Your task to perform on an android device: Open Chrome and go to settings Image 0: 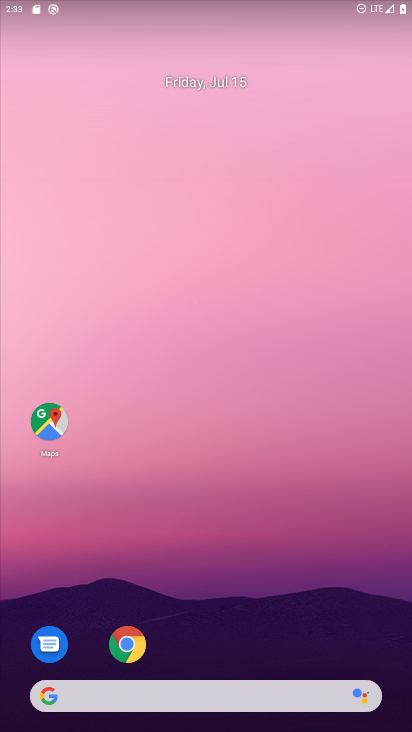
Step 0: click (134, 641)
Your task to perform on an android device: Open Chrome and go to settings Image 1: 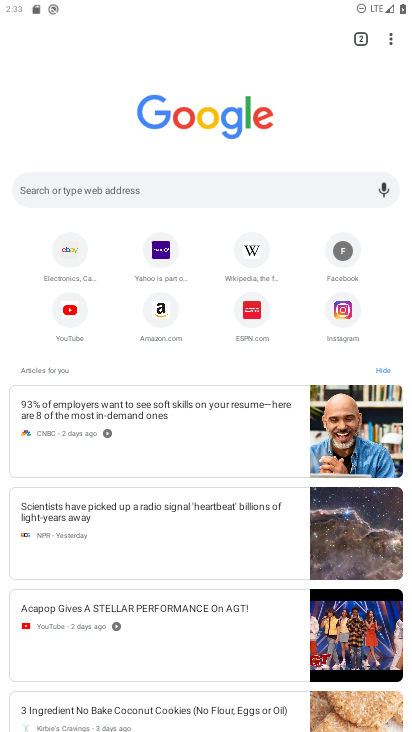
Step 1: click (387, 32)
Your task to perform on an android device: Open Chrome and go to settings Image 2: 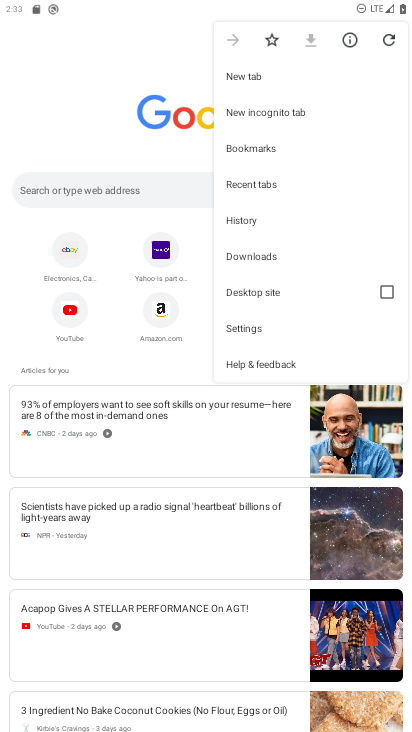
Step 2: click (246, 335)
Your task to perform on an android device: Open Chrome and go to settings Image 3: 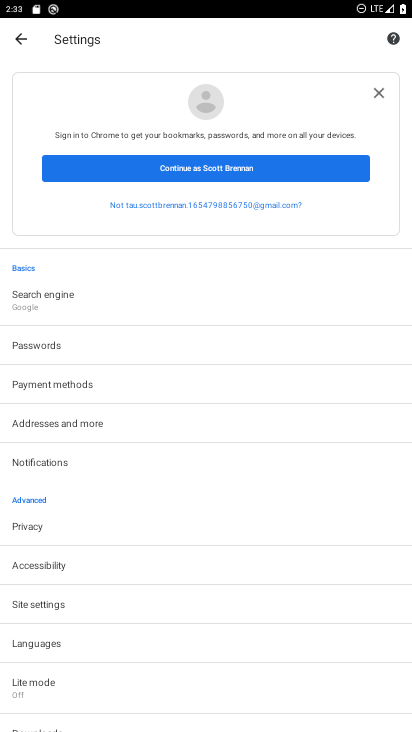
Step 3: task complete